Your task to perform on an android device: Open Youtube and go to the subscriptions tab Image 0: 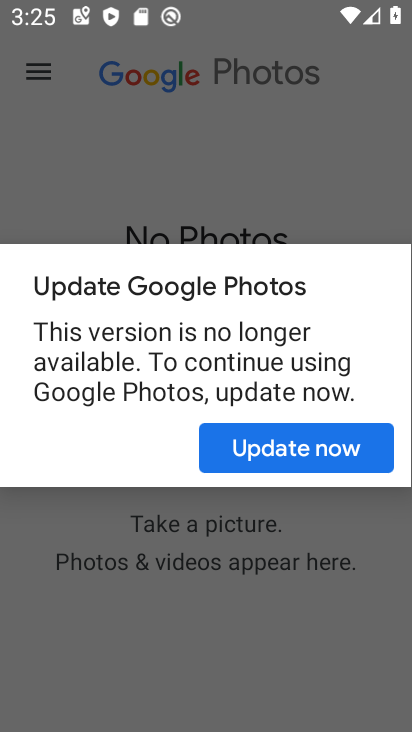
Step 0: press home button
Your task to perform on an android device: Open Youtube and go to the subscriptions tab Image 1: 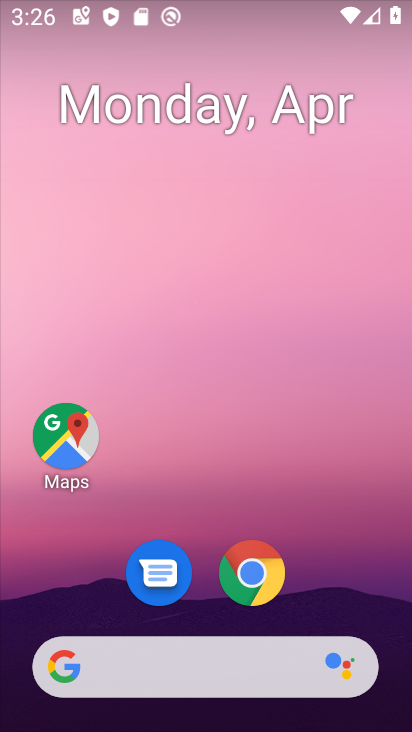
Step 1: drag from (347, 574) to (370, 95)
Your task to perform on an android device: Open Youtube and go to the subscriptions tab Image 2: 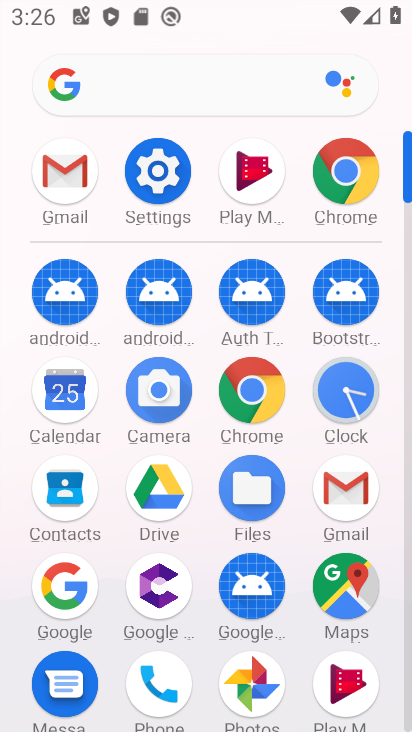
Step 2: drag from (200, 543) to (197, 296)
Your task to perform on an android device: Open Youtube and go to the subscriptions tab Image 3: 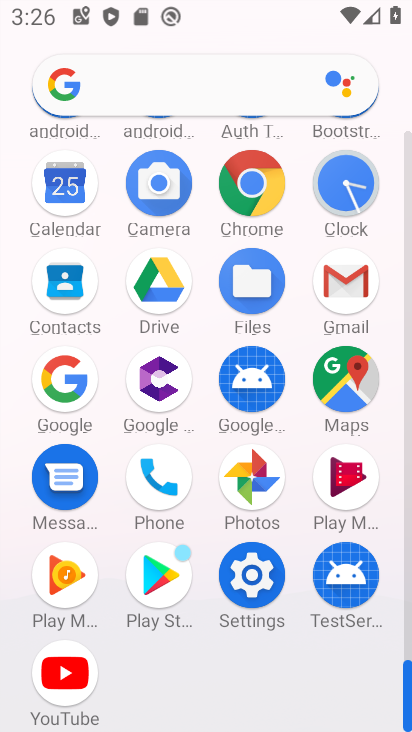
Step 3: click (67, 675)
Your task to perform on an android device: Open Youtube and go to the subscriptions tab Image 4: 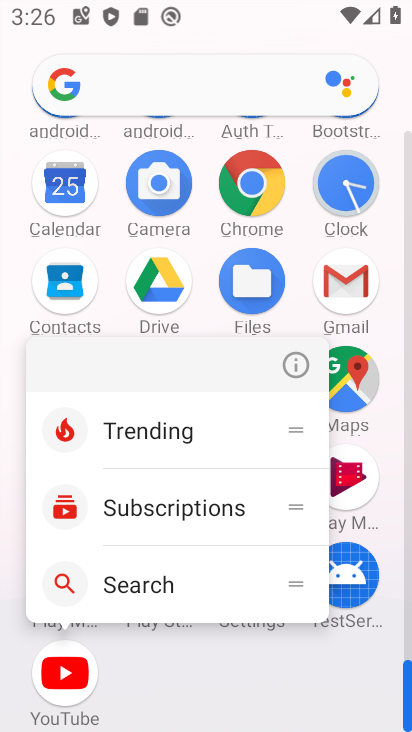
Step 4: click (67, 675)
Your task to perform on an android device: Open Youtube and go to the subscriptions tab Image 5: 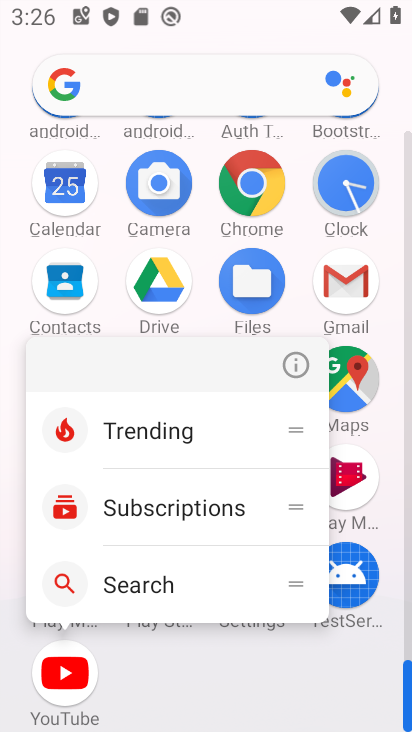
Step 5: click (67, 675)
Your task to perform on an android device: Open Youtube and go to the subscriptions tab Image 6: 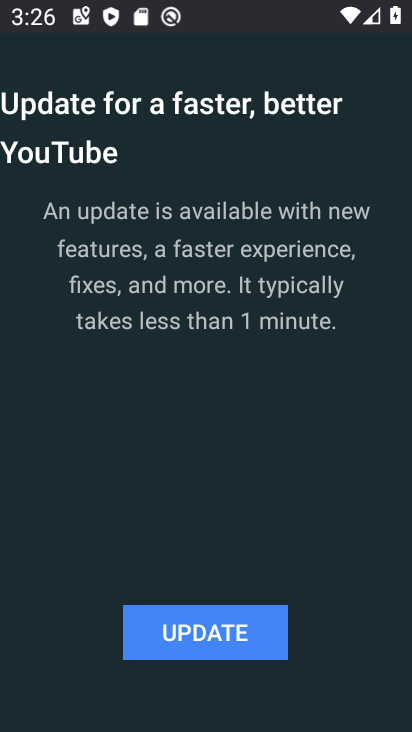
Step 6: click (202, 633)
Your task to perform on an android device: Open Youtube and go to the subscriptions tab Image 7: 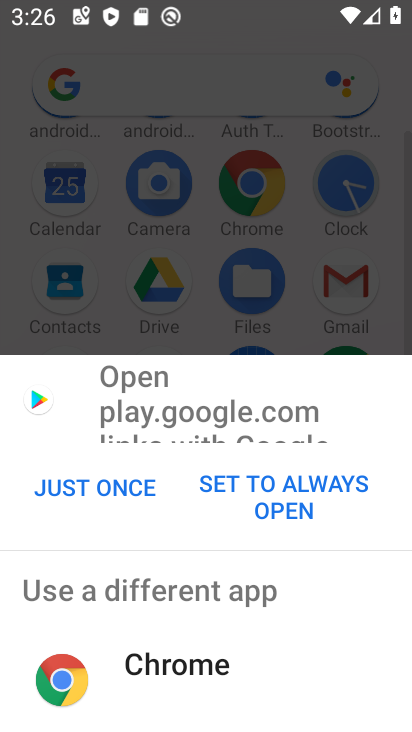
Step 7: click (126, 495)
Your task to perform on an android device: Open Youtube and go to the subscriptions tab Image 8: 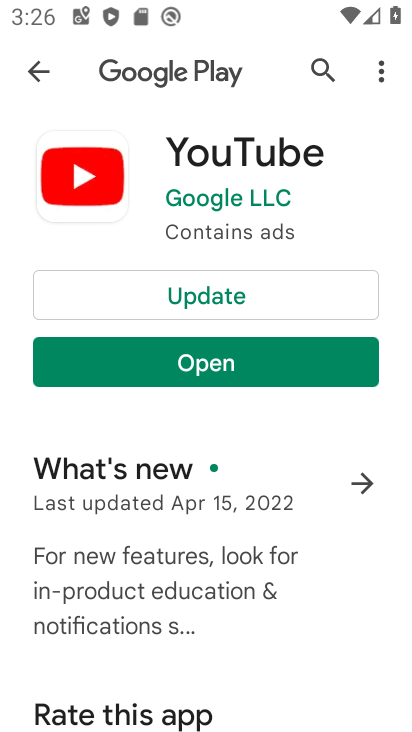
Step 8: click (250, 296)
Your task to perform on an android device: Open Youtube and go to the subscriptions tab Image 9: 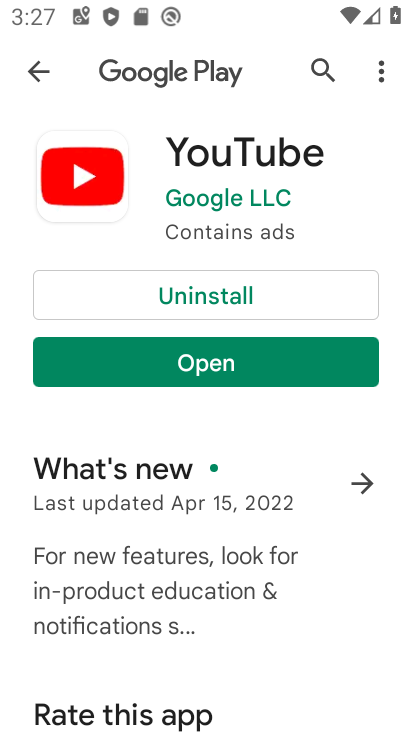
Step 9: click (241, 357)
Your task to perform on an android device: Open Youtube and go to the subscriptions tab Image 10: 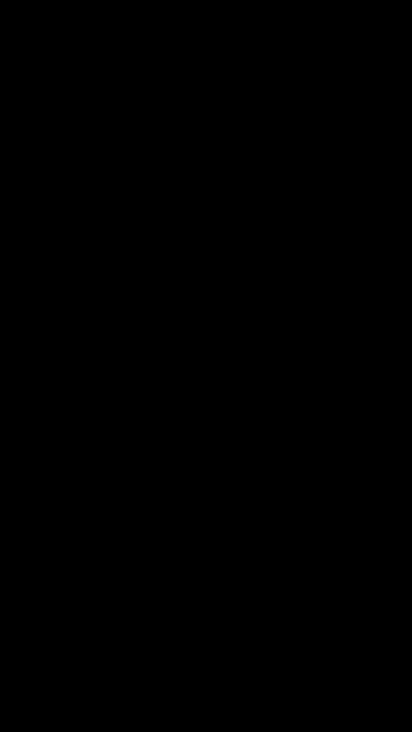
Step 10: click (284, 693)
Your task to perform on an android device: Open Youtube and go to the subscriptions tab Image 11: 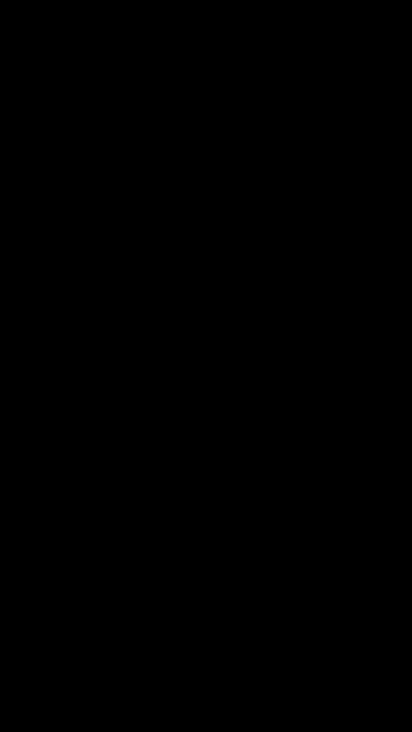
Step 11: task complete